Your task to perform on an android device: Open Google Chrome and open the bookmarks view Image 0: 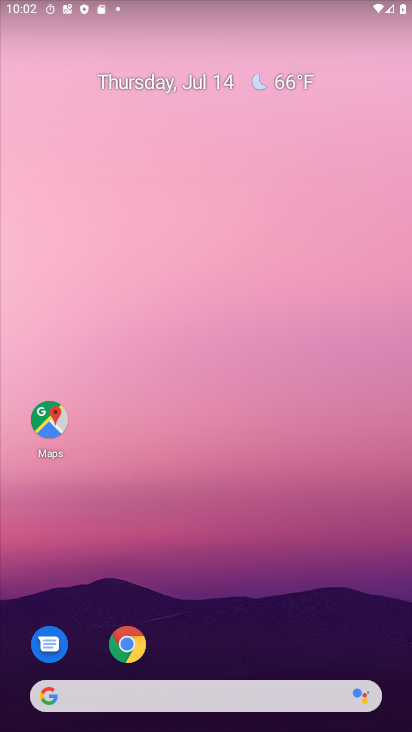
Step 0: click (275, 118)
Your task to perform on an android device: Open Google Chrome and open the bookmarks view Image 1: 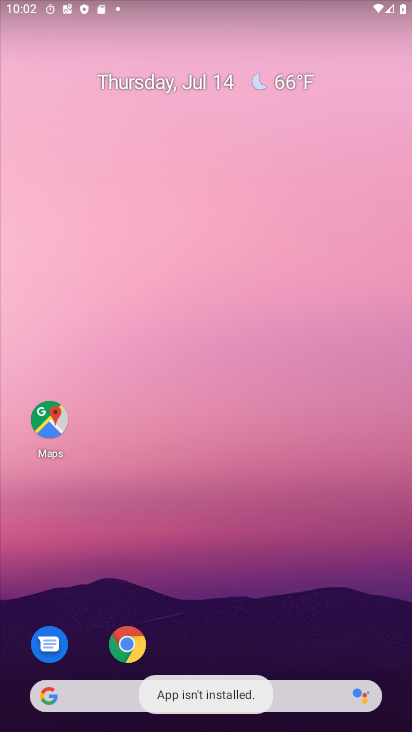
Step 1: drag from (260, 640) to (237, 246)
Your task to perform on an android device: Open Google Chrome and open the bookmarks view Image 2: 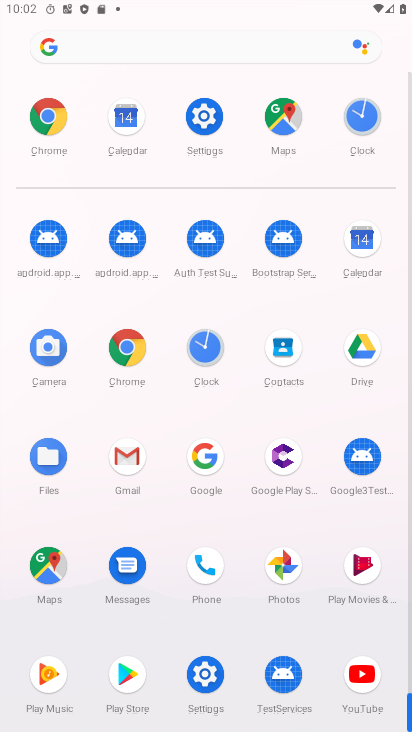
Step 2: click (207, 126)
Your task to perform on an android device: Open Google Chrome and open the bookmarks view Image 3: 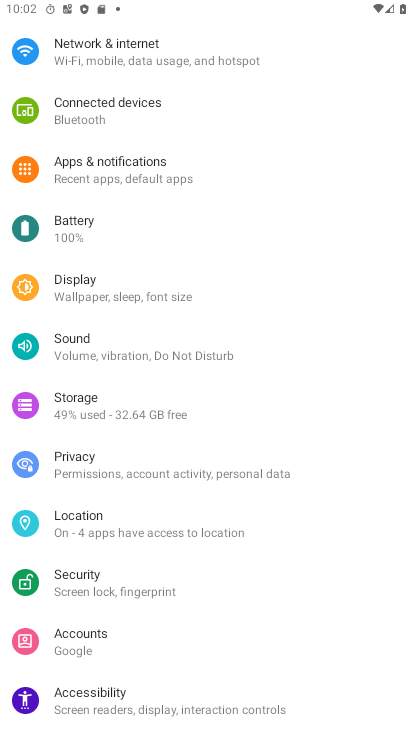
Step 3: press back button
Your task to perform on an android device: Open Google Chrome and open the bookmarks view Image 4: 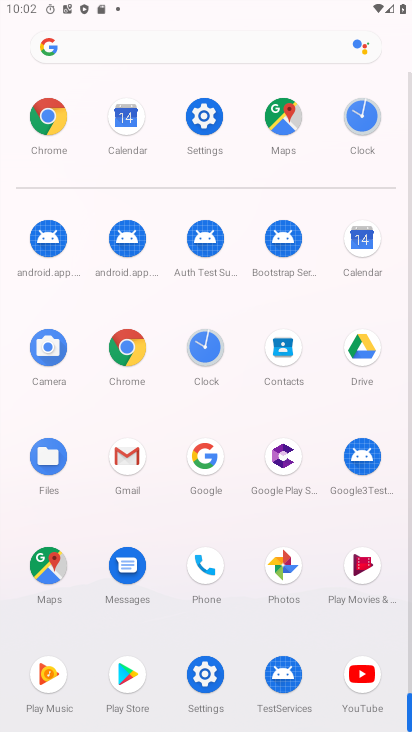
Step 4: click (55, 116)
Your task to perform on an android device: Open Google Chrome and open the bookmarks view Image 5: 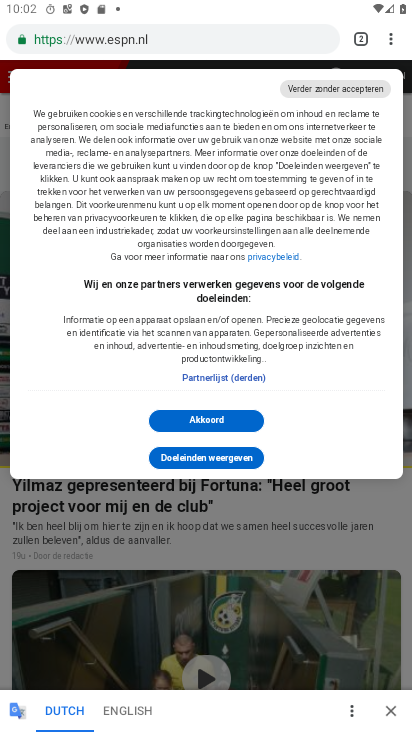
Step 5: drag from (399, 37) to (245, 144)
Your task to perform on an android device: Open Google Chrome and open the bookmarks view Image 6: 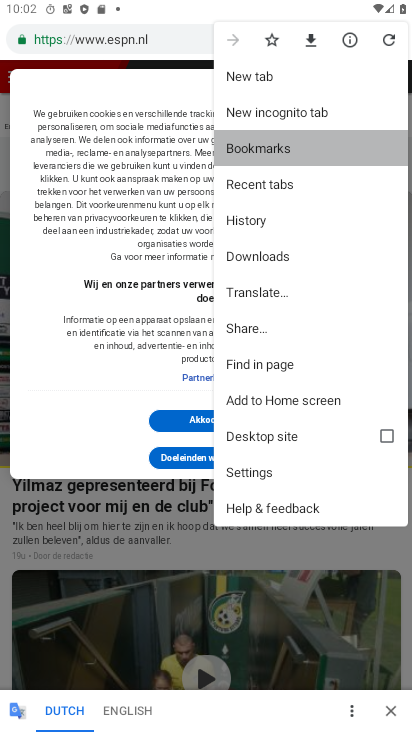
Step 6: click (247, 144)
Your task to perform on an android device: Open Google Chrome and open the bookmarks view Image 7: 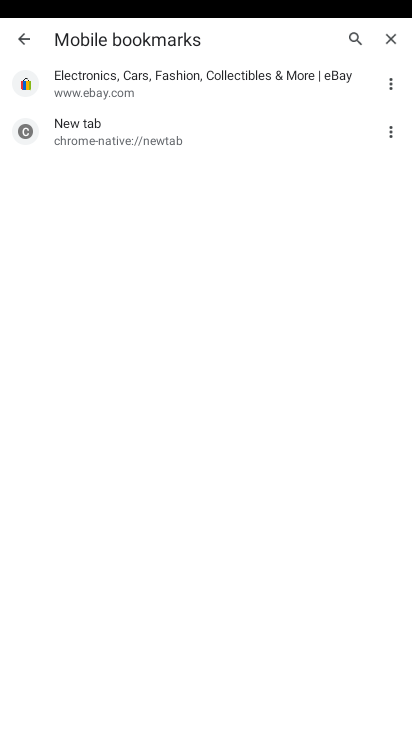
Step 7: task complete